Your task to perform on an android device: turn off priority inbox in the gmail app Image 0: 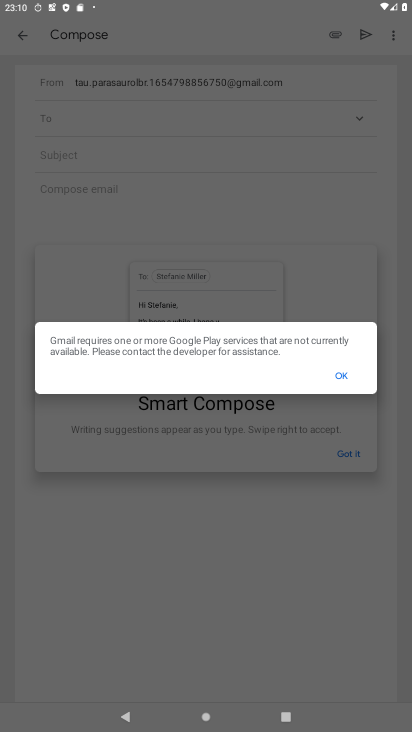
Step 0: press home button
Your task to perform on an android device: turn off priority inbox in the gmail app Image 1: 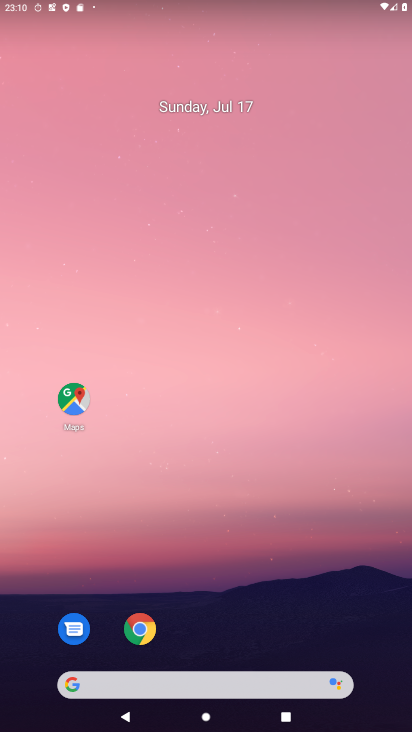
Step 1: drag from (238, 688) to (225, 100)
Your task to perform on an android device: turn off priority inbox in the gmail app Image 2: 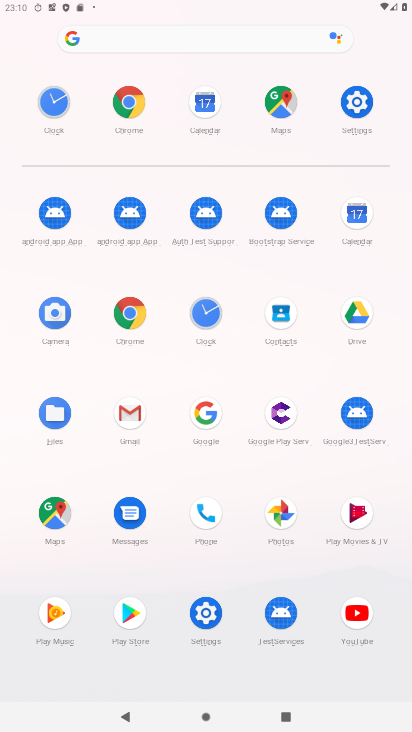
Step 2: click (125, 418)
Your task to perform on an android device: turn off priority inbox in the gmail app Image 3: 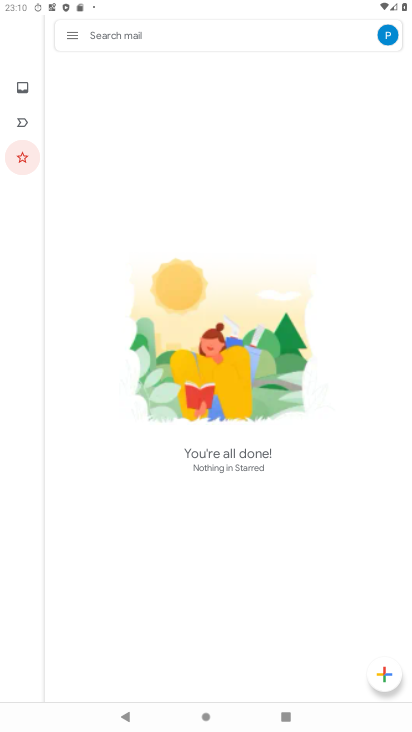
Step 3: click (68, 33)
Your task to perform on an android device: turn off priority inbox in the gmail app Image 4: 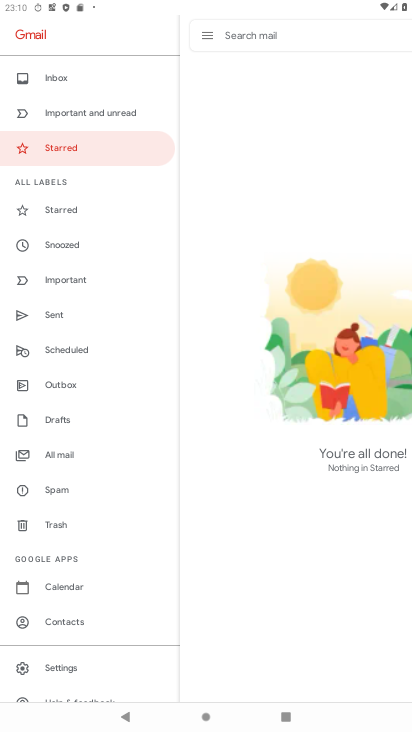
Step 4: click (45, 666)
Your task to perform on an android device: turn off priority inbox in the gmail app Image 5: 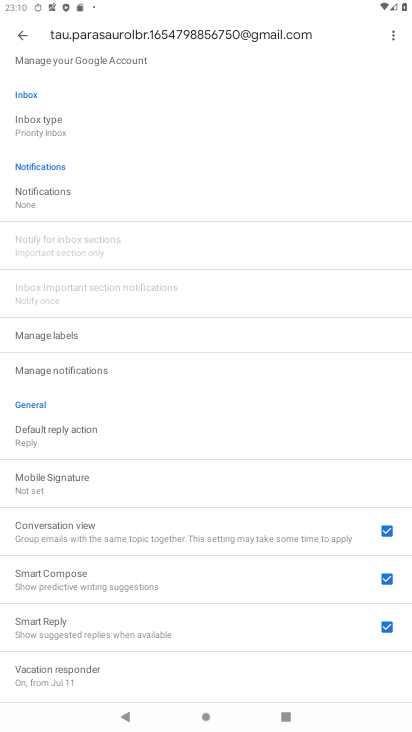
Step 5: click (41, 129)
Your task to perform on an android device: turn off priority inbox in the gmail app Image 6: 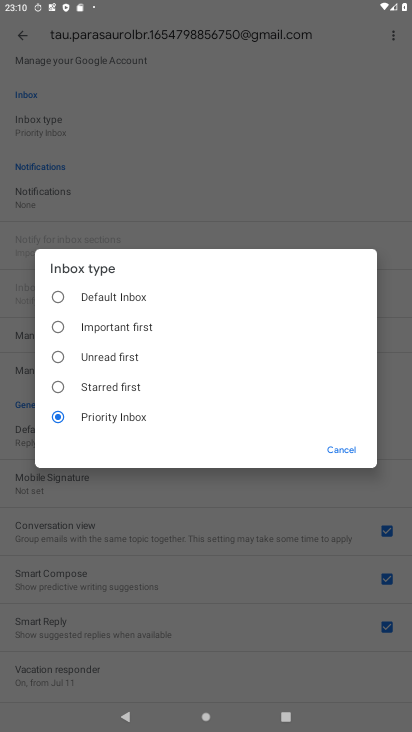
Step 6: click (57, 294)
Your task to perform on an android device: turn off priority inbox in the gmail app Image 7: 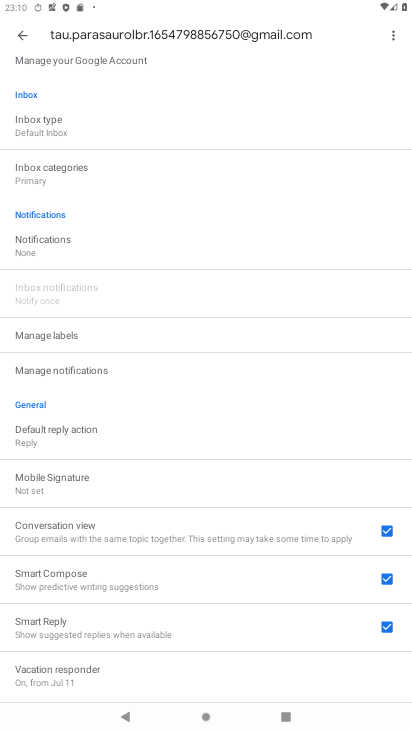
Step 7: task complete